Your task to perform on an android device: Open the web browser Image 0: 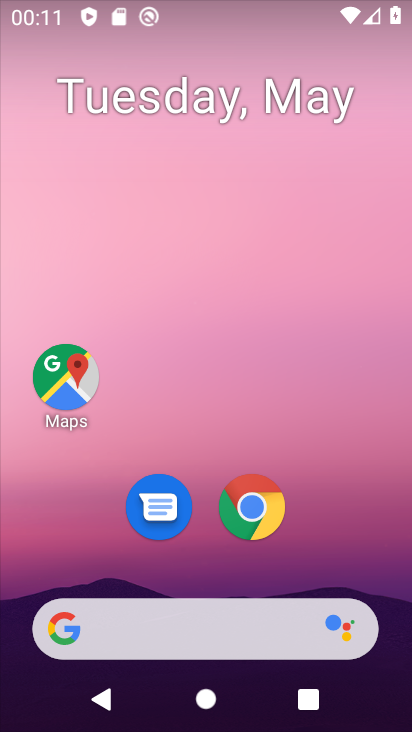
Step 0: click (247, 524)
Your task to perform on an android device: Open the web browser Image 1: 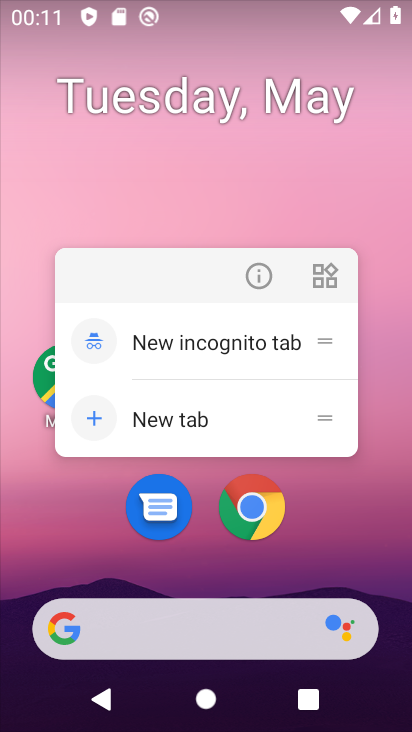
Step 1: click (241, 501)
Your task to perform on an android device: Open the web browser Image 2: 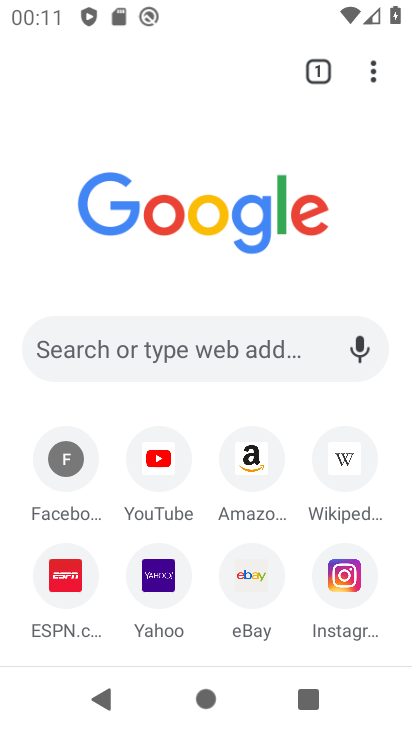
Step 2: task complete